Your task to perform on an android device: Go to location settings Image 0: 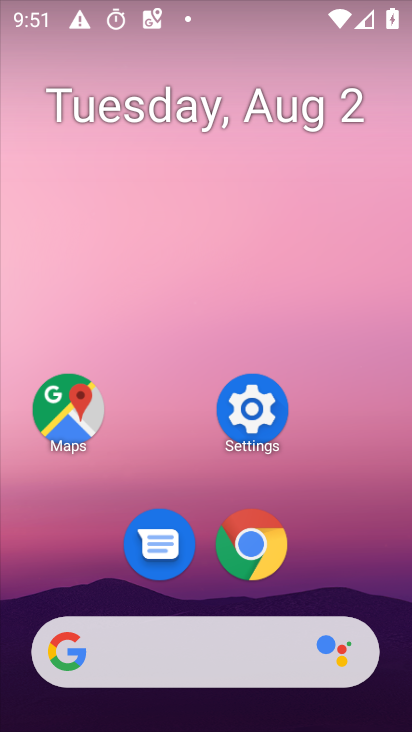
Step 0: click (263, 408)
Your task to perform on an android device: Go to location settings Image 1: 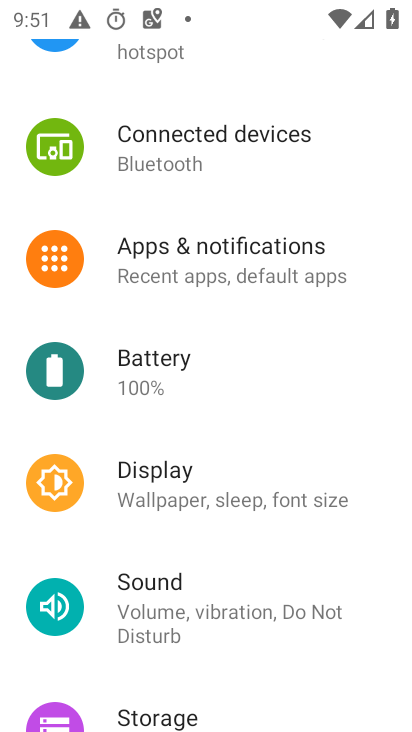
Step 1: drag from (233, 613) to (327, 247)
Your task to perform on an android device: Go to location settings Image 2: 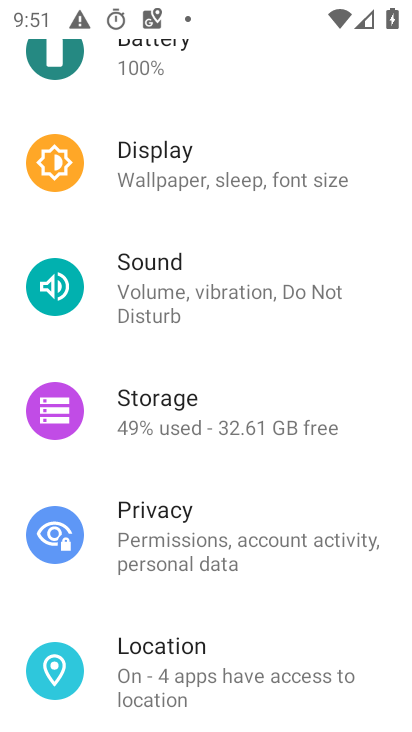
Step 2: click (183, 663)
Your task to perform on an android device: Go to location settings Image 3: 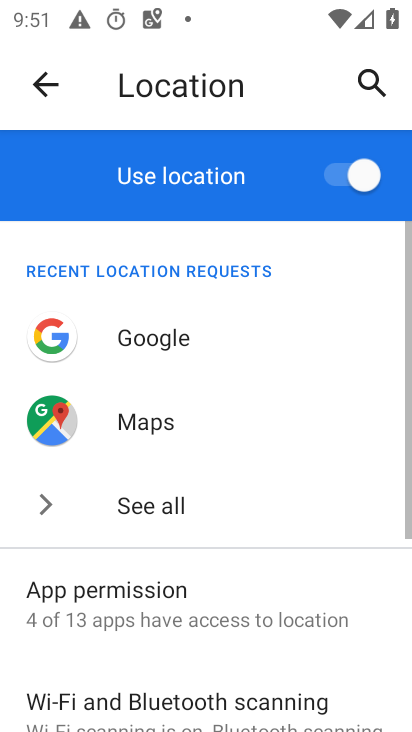
Step 3: task complete